Your task to perform on an android device: open the mobile data screen to see how much data has been used Image 0: 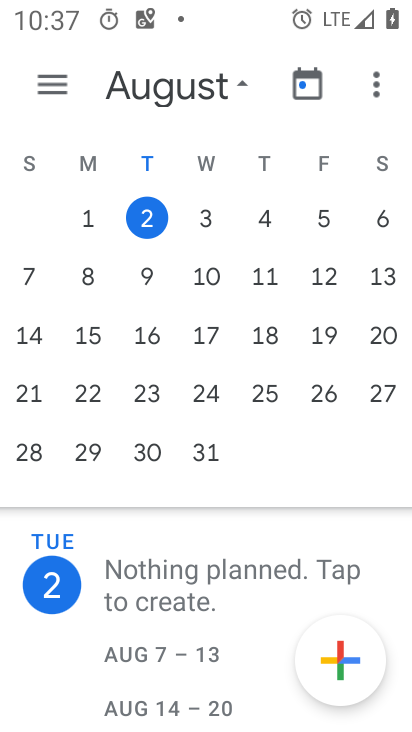
Step 0: press home button
Your task to perform on an android device: open the mobile data screen to see how much data has been used Image 1: 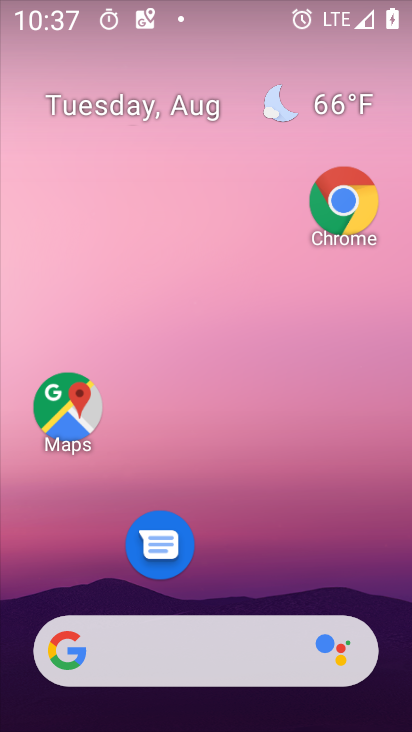
Step 1: drag from (202, 652) to (286, 13)
Your task to perform on an android device: open the mobile data screen to see how much data has been used Image 2: 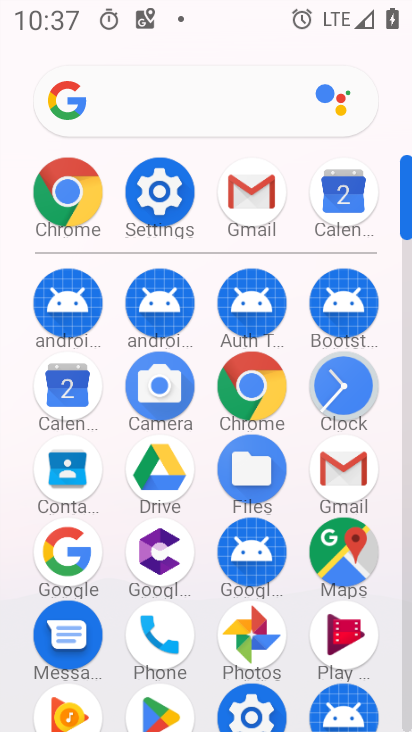
Step 2: click (165, 193)
Your task to perform on an android device: open the mobile data screen to see how much data has been used Image 3: 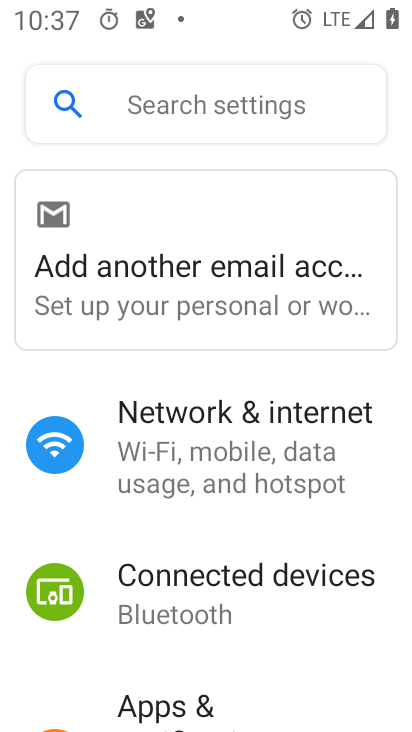
Step 3: drag from (175, 627) to (166, 126)
Your task to perform on an android device: open the mobile data screen to see how much data has been used Image 4: 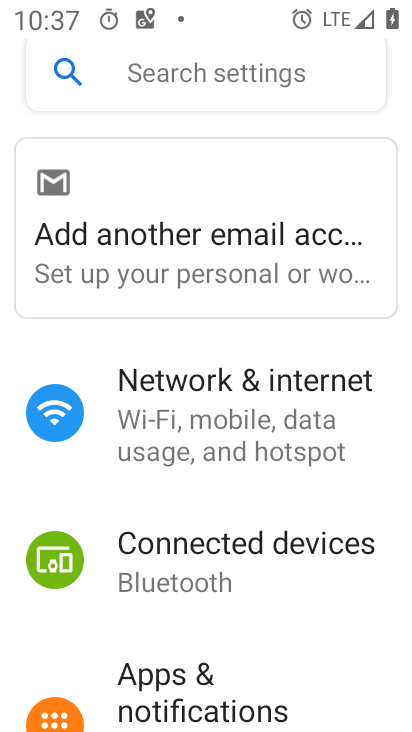
Step 4: drag from (149, 593) to (127, 106)
Your task to perform on an android device: open the mobile data screen to see how much data has been used Image 5: 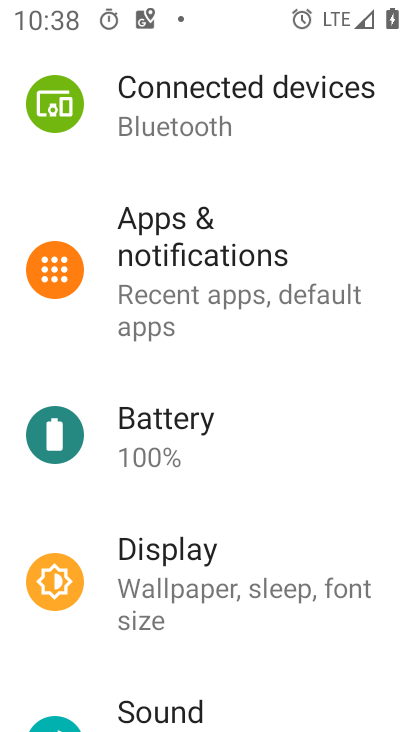
Step 5: drag from (171, 382) to (127, 719)
Your task to perform on an android device: open the mobile data screen to see how much data has been used Image 6: 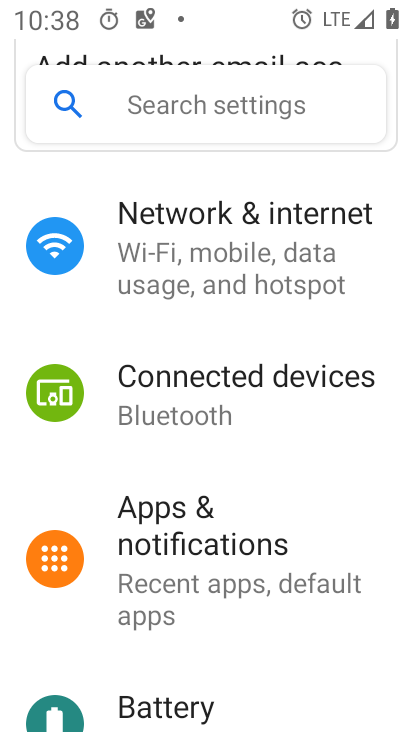
Step 6: drag from (223, 330) to (214, 616)
Your task to perform on an android device: open the mobile data screen to see how much data has been used Image 7: 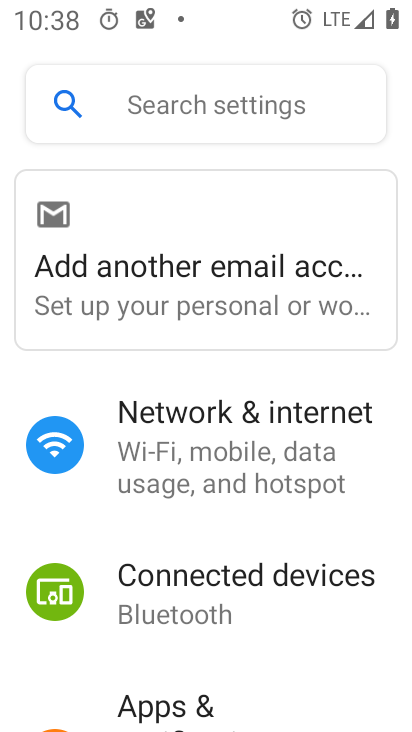
Step 7: click (280, 430)
Your task to perform on an android device: open the mobile data screen to see how much data has been used Image 8: 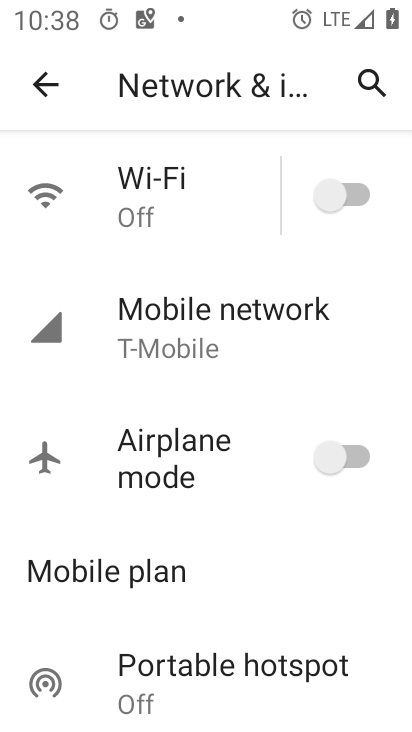
Step 8: click (184, 354)
Your task to perform on an android device: open the mobile data screen to see how much data has been used Image 9: 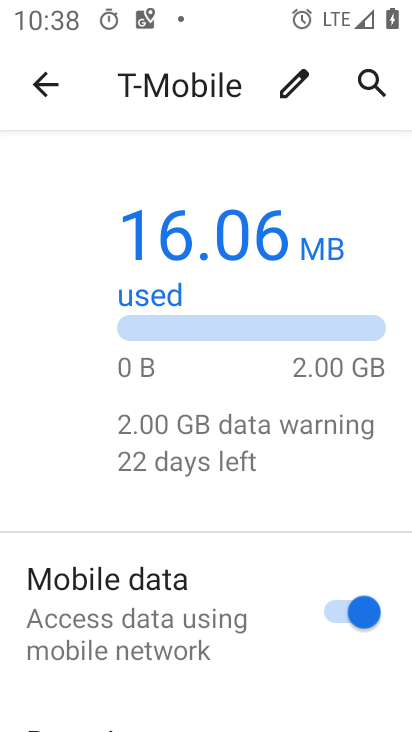
Step 9: drag from (262, 602) to (237, 98)
Your task to perform on an android device: open the mobile data screen to see how much data has been used Image 10: 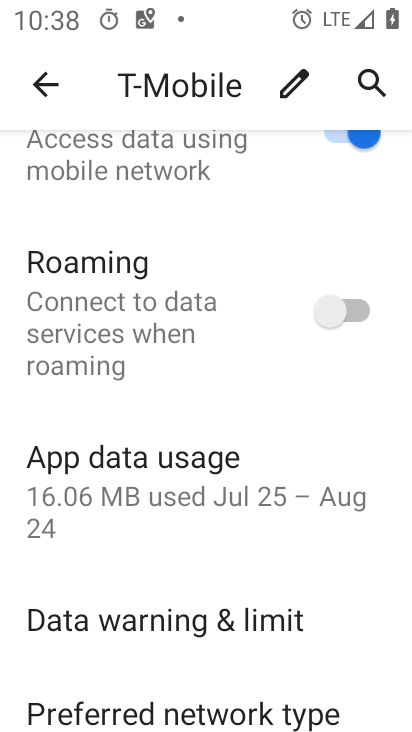
Step 10: click (282, 475)
Your task to perform on an android device: open the mobile data screen to see how much data has been used Image 11: 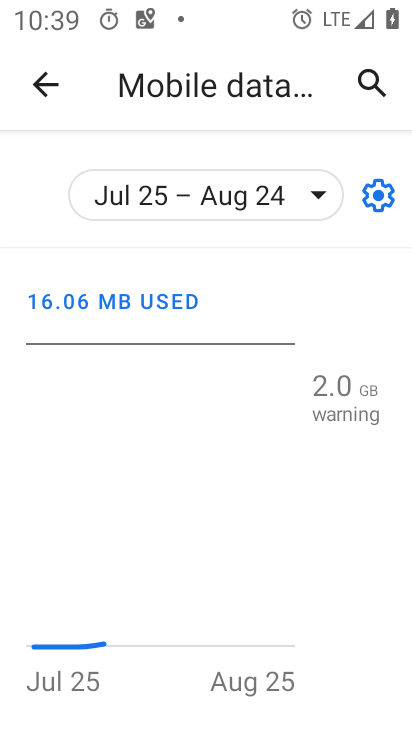
Step 11: task complete